Your task to perform on an android device: change the clock display to analog Image 0: 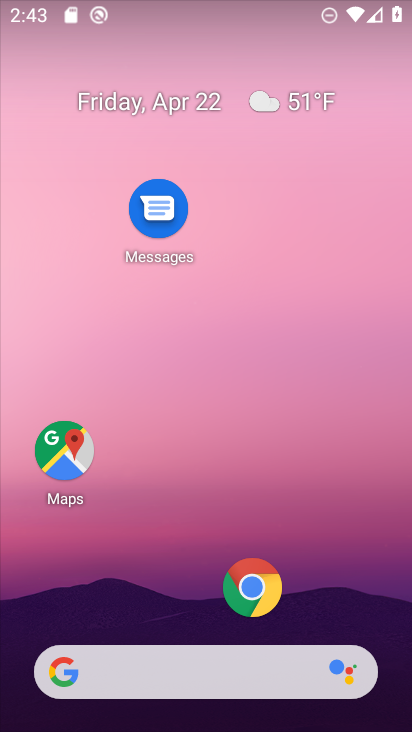
Step 0: drag from (199, 615) to (208, 161)
Your task to perform on an android device: change the clock display to analog Image 1: 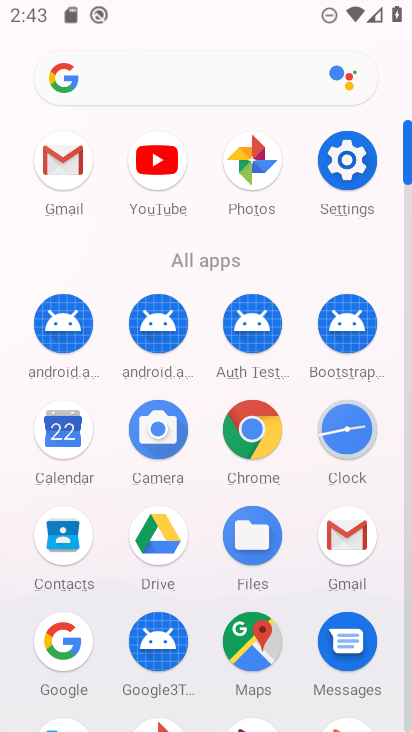
Step 1: click (354, 429)
Your task to perform on an android device: change the clock display to analog Image 2: 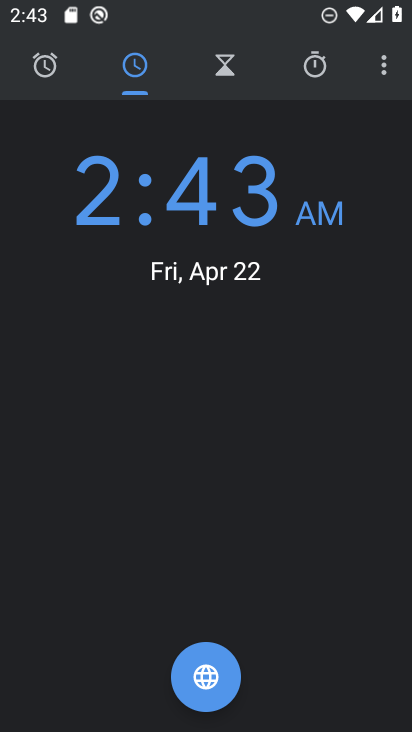
Step 2: click (379, 72)
Your task to perform on an android device: change the clock display to analog Image 3: 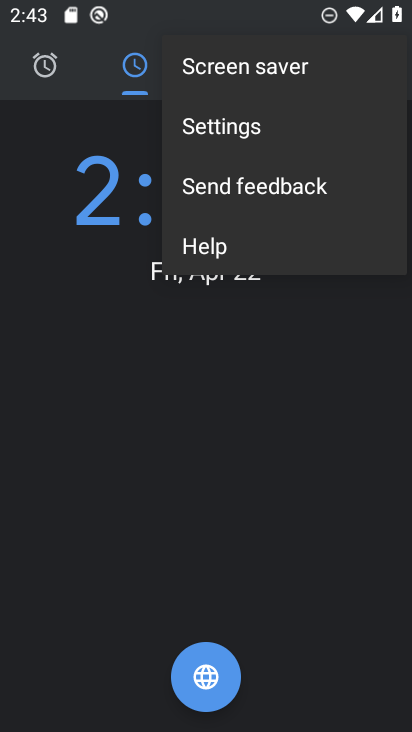
Step 3: click (237, 117)
Your task to perform on an android device: change the clock display to analog Image 4: 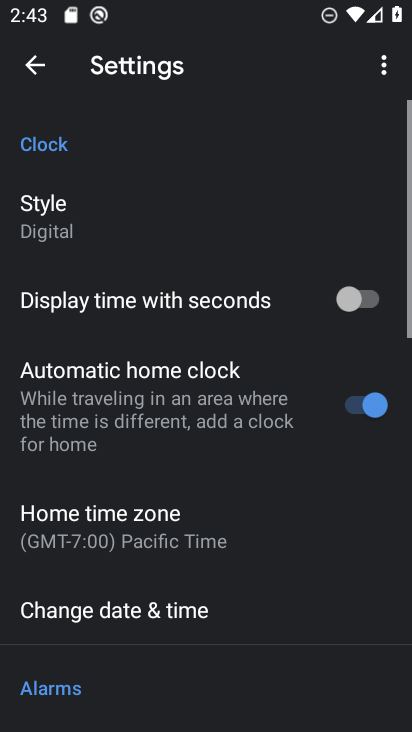
Step 4: click (102, 224)
Your task to perform on an android device: change the clock display to analog Image 5: 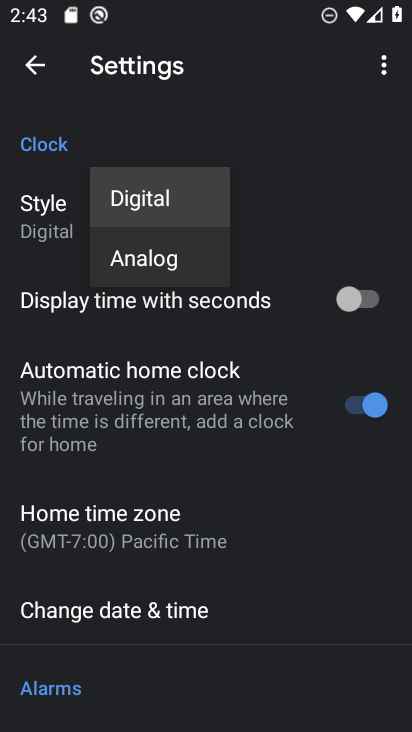
Step 5: click (132, 254)
Your task to perform on an android device: change the clock display to analog Image 6: 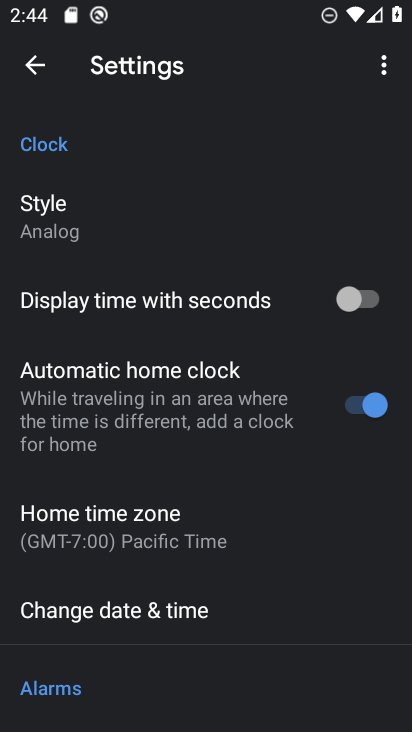
Step 6: task complete